Your task to perform on an android device: Set the phone to "Do not disturb". Image 0: 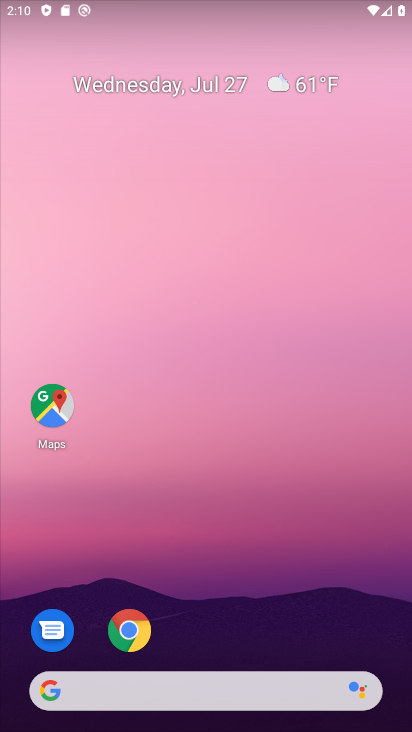
Step 0: drag from (308, 600) to (224, 226)
Your task to perform on an android device: Set the phone to "Do not disturb". Image 1: 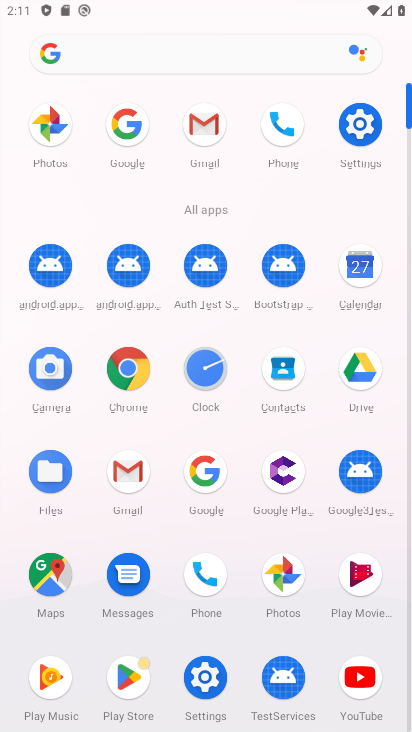
Step 1: click (206, 666)
Your task to perform on an android device: Set the phone to "Do not disturb". Image 2: 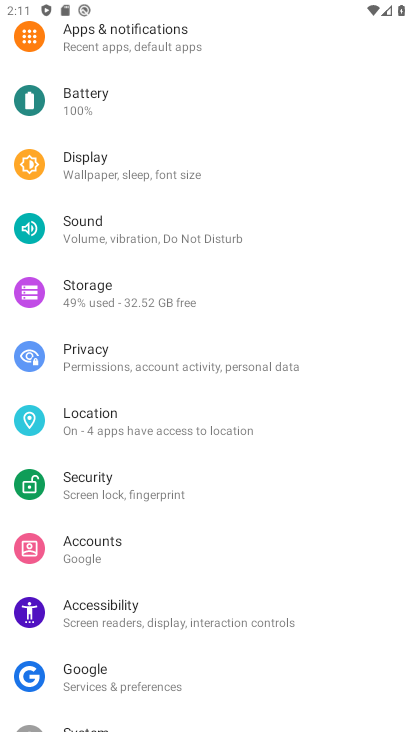
Step 2: click (289, 230)
Your task to perform on an android device: Set the phone to "Do not disturb". Image 3: 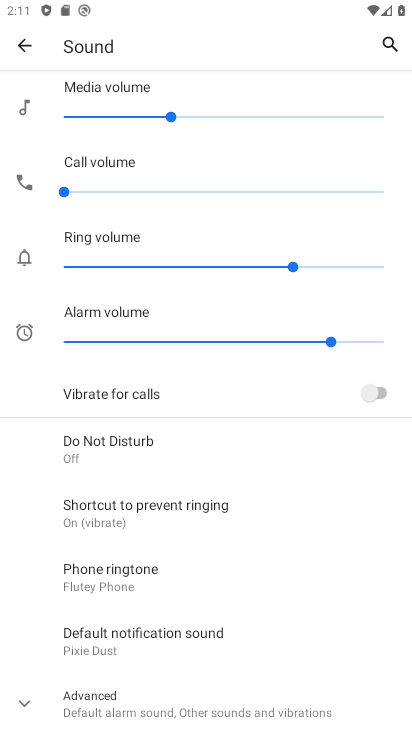
Step 3: click (165, 444)
Your task to perform on an android device: Set the phone to "Do not disturb". Image 4: 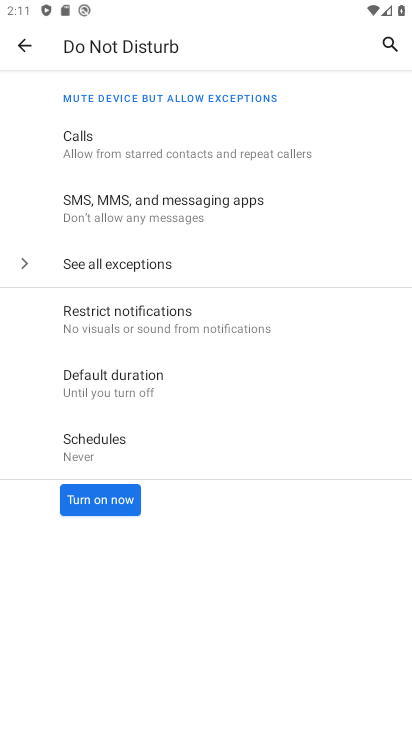
Step 4: click (99, 508)
Your task to perform on an android device: Set the phone to "Do not disturb". Image 5: 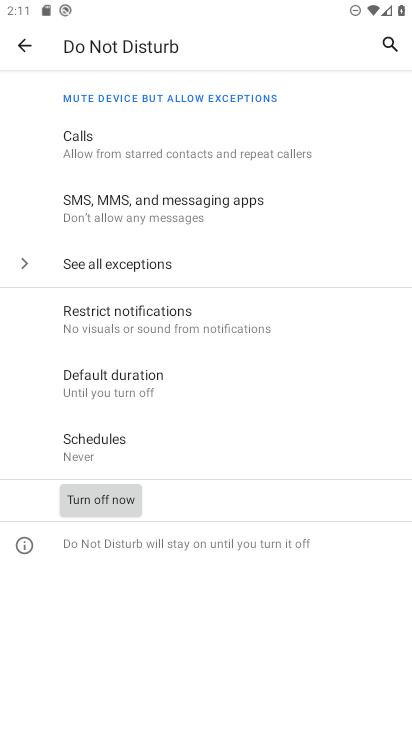
Step 5: task complete